Your task to perform on an android device: toggle data saver in the chrome app Image 0: 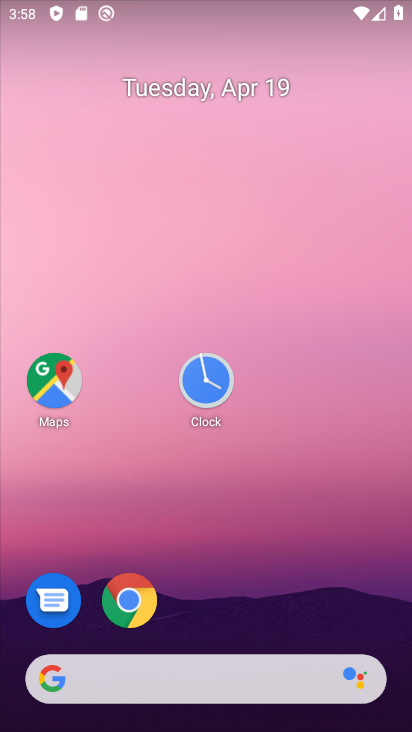
Step 0: drag from (215, 716) to (158, 231)
Your task to perform on an android device: toggle data saver in the chrome app Image 1: 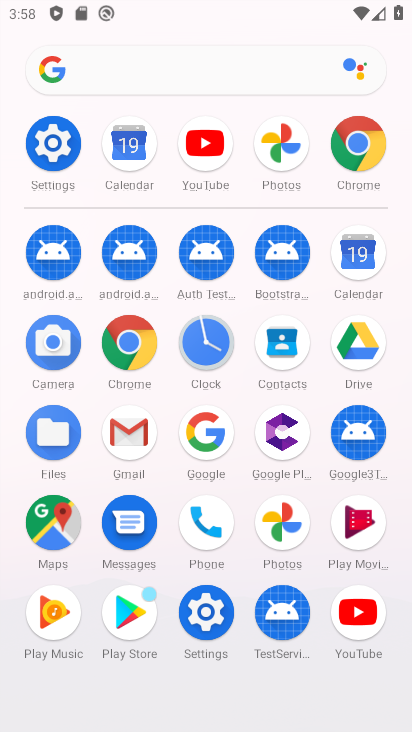
Step 1: click (356, 149)
Your task to perform on an android device: toggle data saver in the chrome app Image 2: 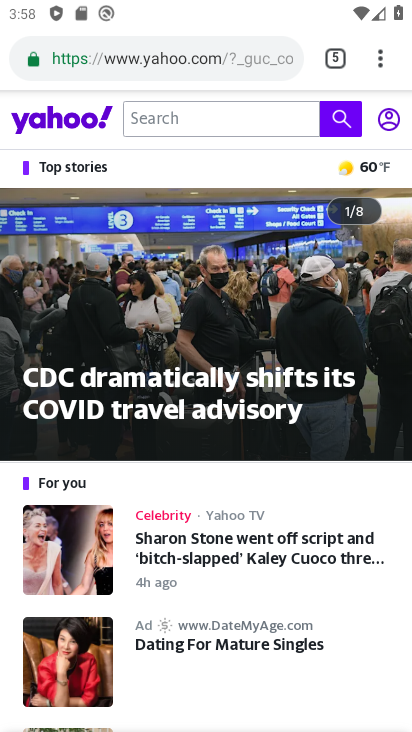
Step 2: press home button
Your task to perform on an android device: toggle data saver in the chrome app Image 3: 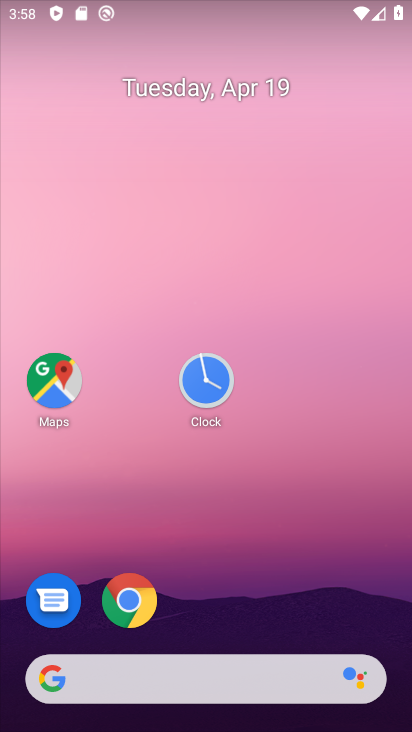
Step 3: drag from (285, 591) to (157, 151)
Your task to perform on an android device: toggle data saver in the chrome app Image 4: 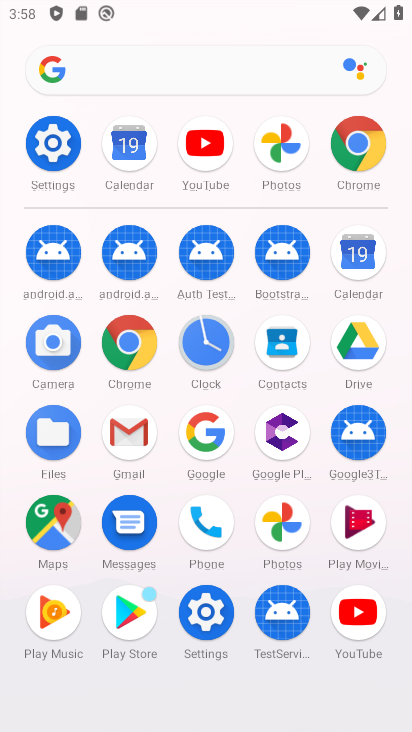
Step 4: click (357, 142)
Your task to perform on an android device: toggle data saver in the chrome app Image 5: 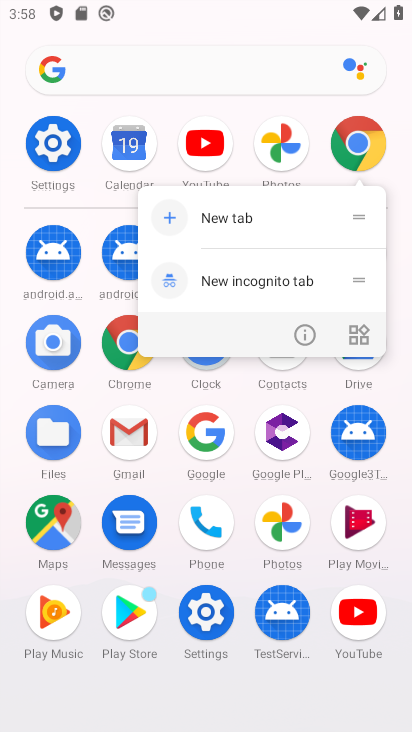
Step 5: click (357, 142)
Your task to perform on an android device: toggle data saver in the chrome app Image 6: 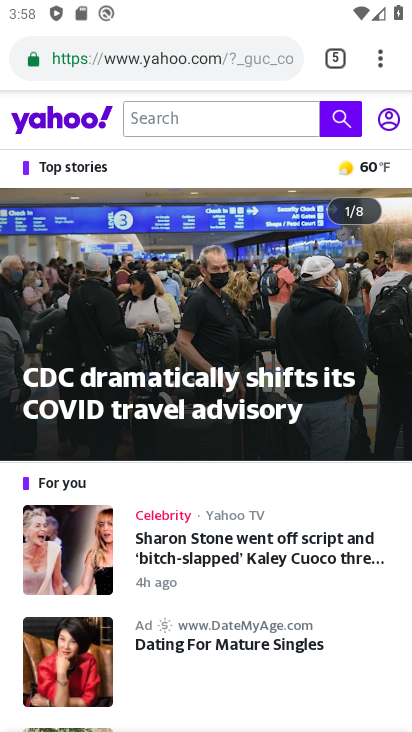
Step 6: click (373, 58)
Your task to perform on an android device: toggle data saver in the chrome app Image 7: 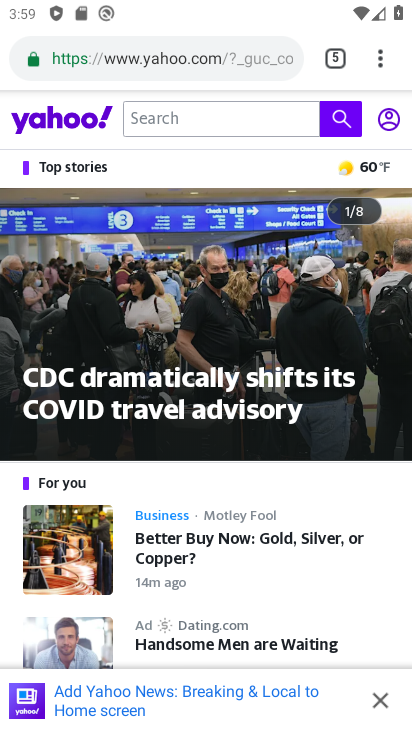
Step 7: click (378, 54)
Your task to perform on an android device: toggle data saver in the chrome app Image 8: 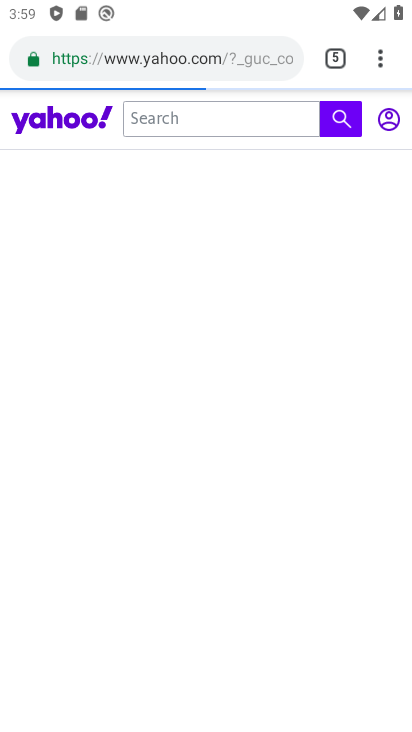
Step 8: click (378, 54)
Your task to perform on an android device: toggle data saver in the chrome app Image 9: 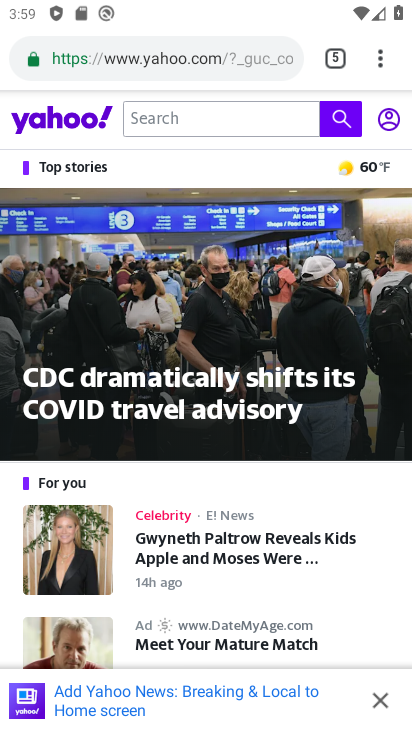
Step 9: click (378, 54)
Your task to perform on an android device: toggle data saver in the chrome app Image 10: 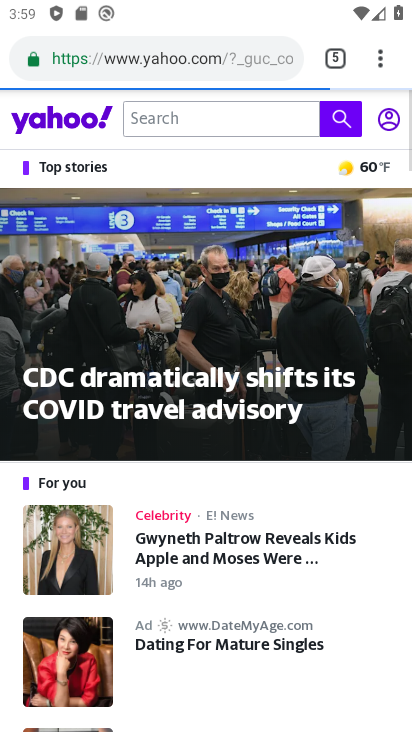
Step 10: click (378, 54)
Your task to perform on an android device: toggle data saver in the chrome app Image 11: 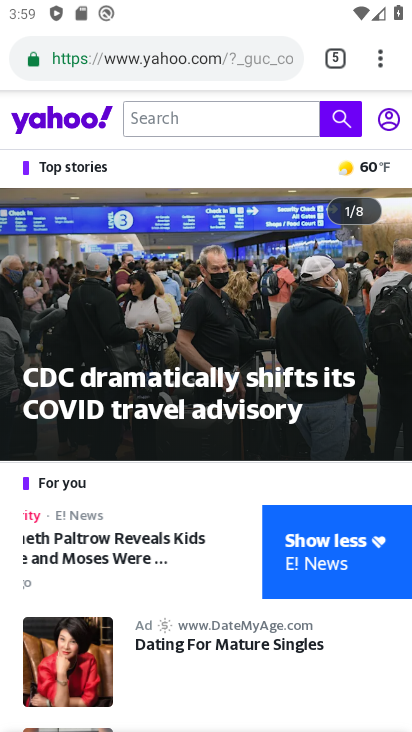
Step 11: click (378, 51)
Your task to perform on an android device: toggle data saver in the chrome app Image 12: 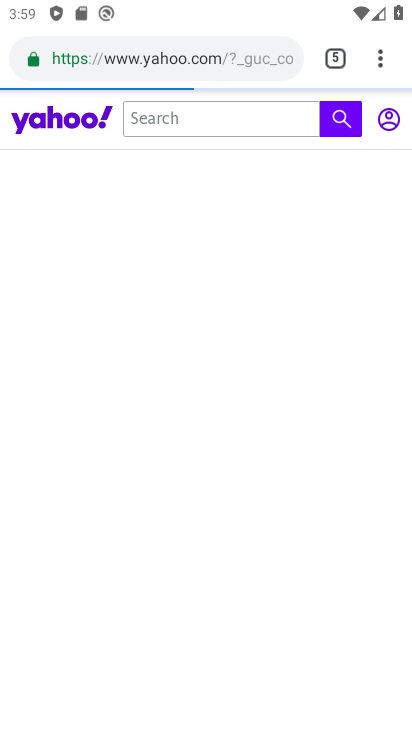
Step 12: click (378, 51)
Your task to perform on an android device: toggle data saver in the chrome app Image 13: 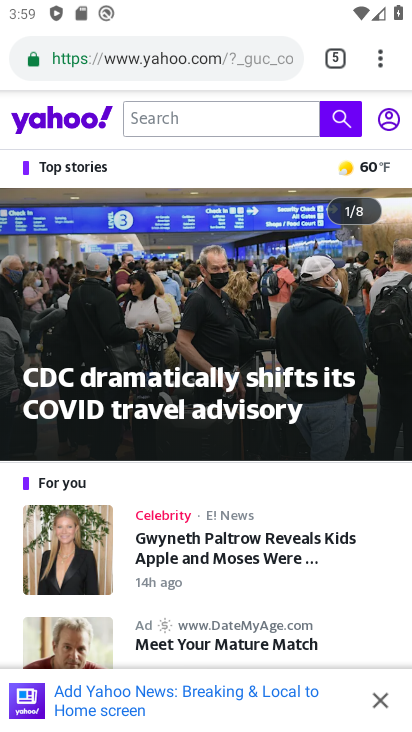
Step 13: click (382, 56)
Your task to perform on an android device: toggle data saver in the chrome app Image 14: 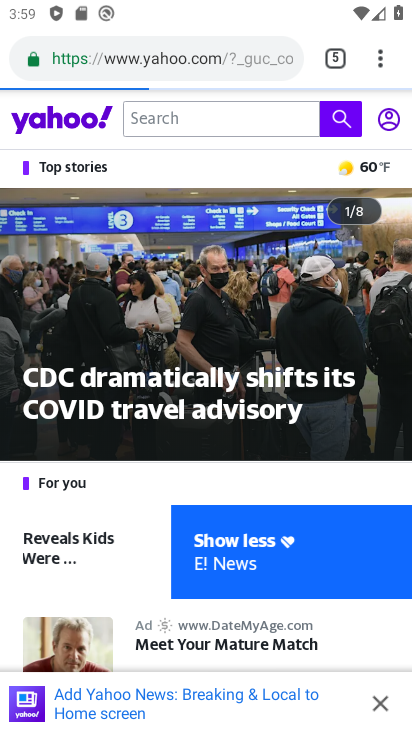
Step 14: click (382, 56)
Your task to perform on an android device: toggle data saver in the chrome app Image 15: 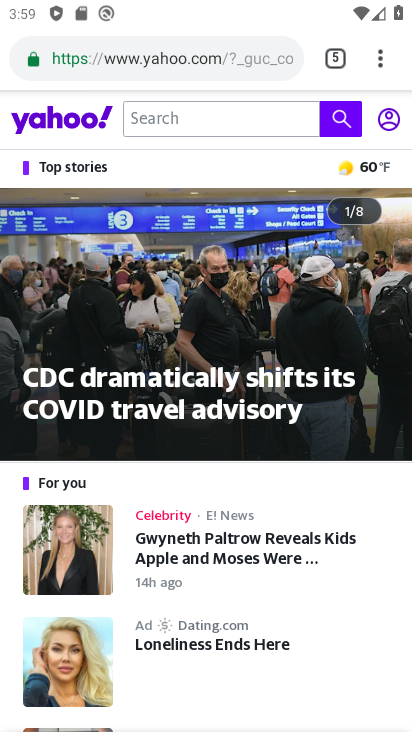
Step 15: click (382, 56)
Your task to perform on an android device: toggle data saver in the chrome app Image 16: 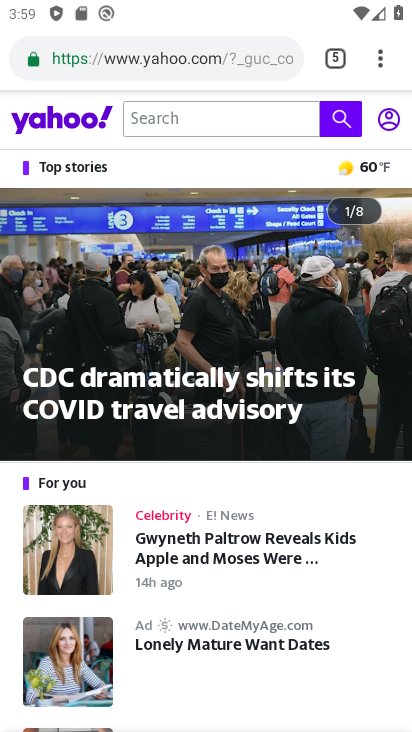
Step 16: click (378, 53)
Your task to perform on an android device: toggle data saver in the chrome app Image 17: 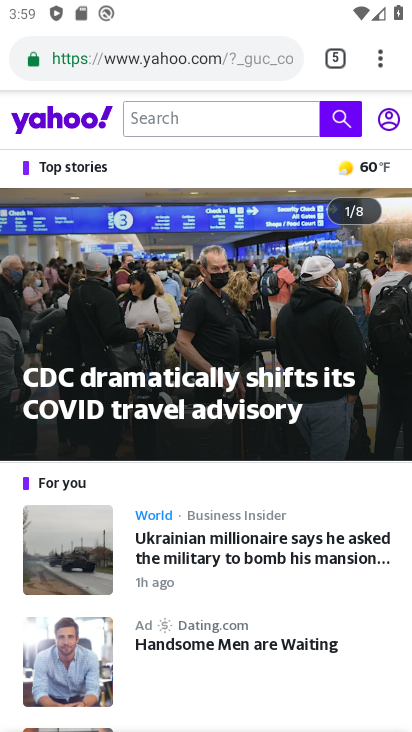
Step 17: click (377, 58)
Your task to perform on an android device: toggle data saver in the chrome app Image 18: 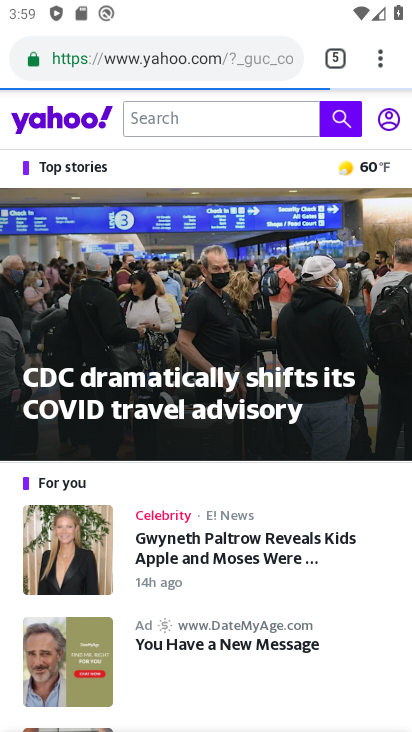
Step 18: click (381, 56)
Your task to perform on an android device: toggle data saver in the chrome app Image 19: 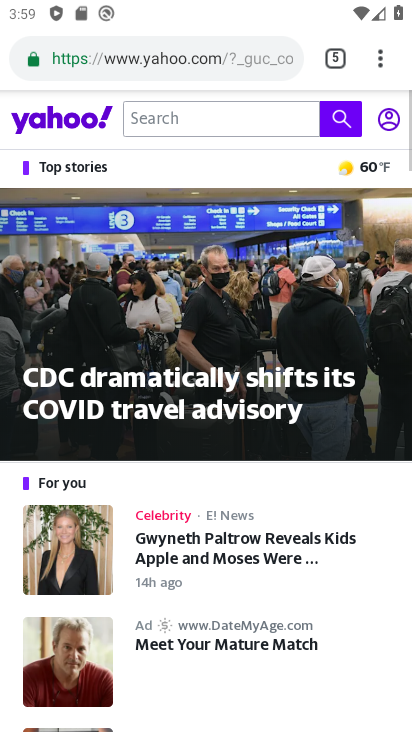
Step 19: click (373, 58)
Your task to perform on an android device: toggle data saver in the chrome app Image 20: 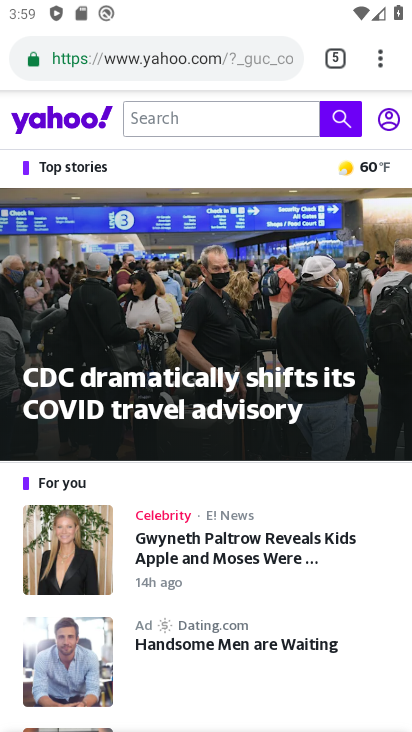
Step 20: click (376, 62)
Your task to perform on an android device: toggle data saver in the chrome app Image 21: 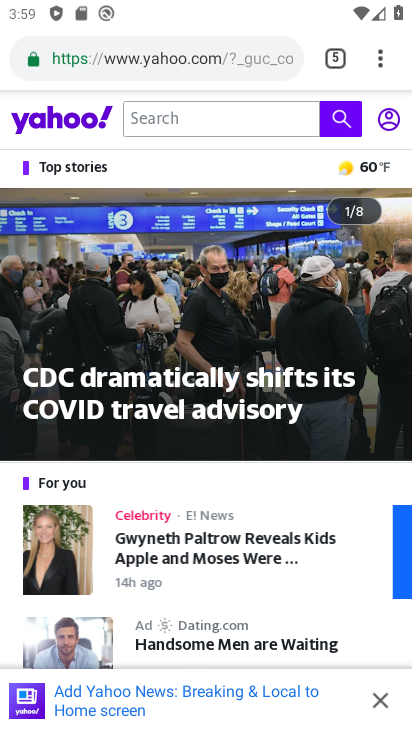
Step 21: click (374, 56)
Your task to perform on an android device: toggle data saver in the chrome app Image 22: 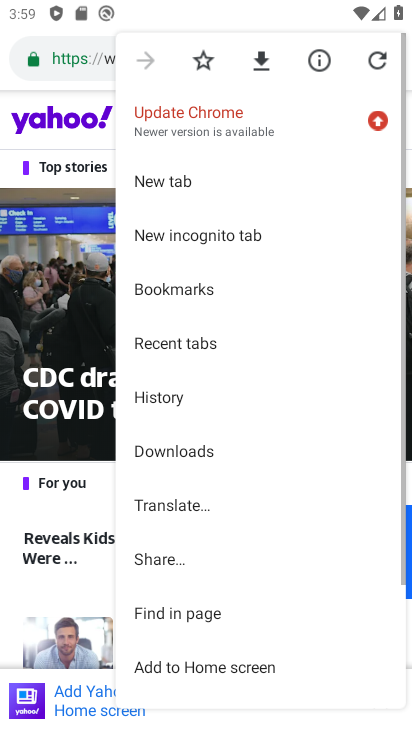
Step 22: click (373, 58)
Your task to perform on an android device: toggle data saver in the chrome app Image 23: 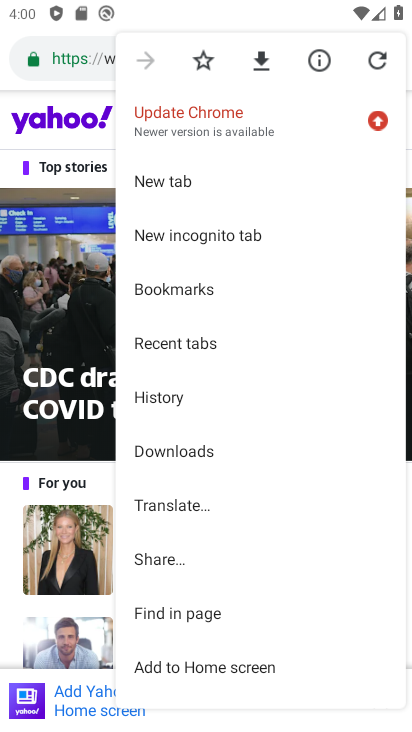
Step 23: drag from (318, 585) to (284, 234)
Your task to perform on an android device: toggle data saver in the chrome app Image 24: 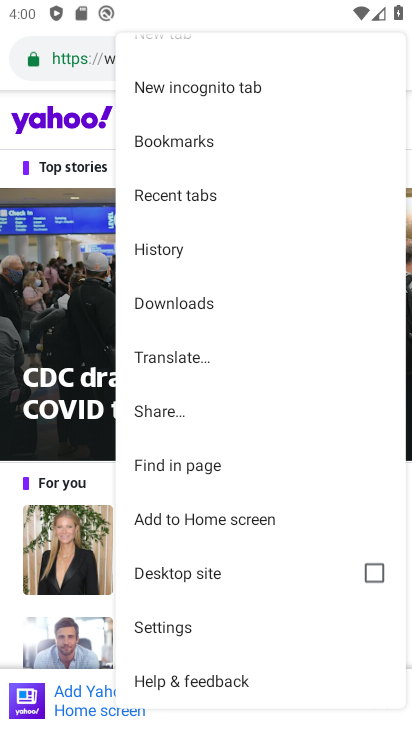
Step 24: click (169, 622)
Your task to perform on an android device: toggle data saver in the chrome app Image 25: 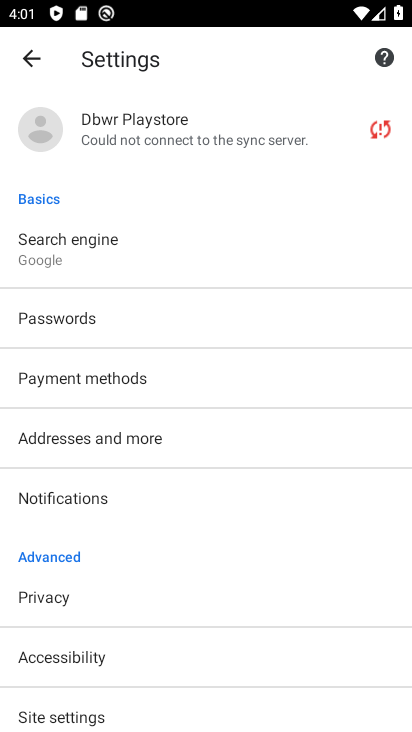
Step 25: drag from (17, 333) to (60, 154)
Your task to perform on an android device: toggle data saver in the chrome app Image 26: 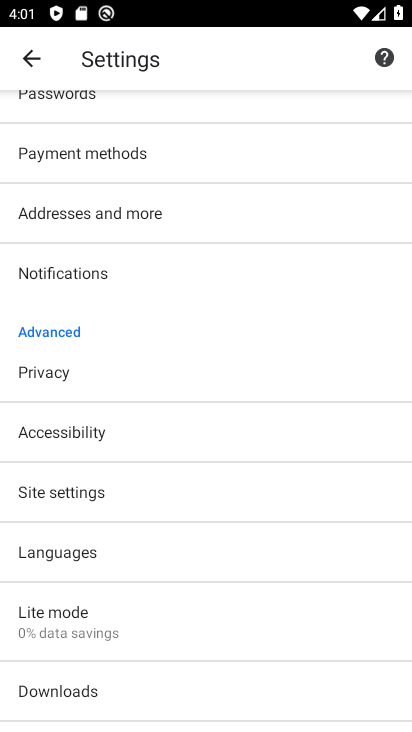
Step 26: click (198, 108)
Your task to perform on an android device: toggle data saver in the chrome app Image 27: 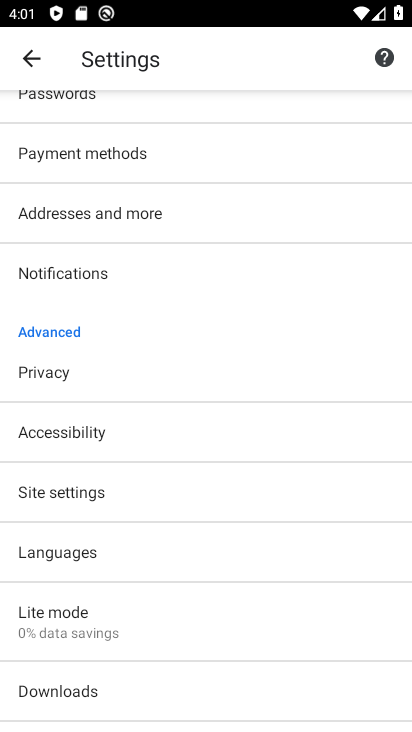
Step 27: drag from (90, 265) to (164, 204)
Your task to perform on an android device: toggle data saver in the chrome app Image 28: 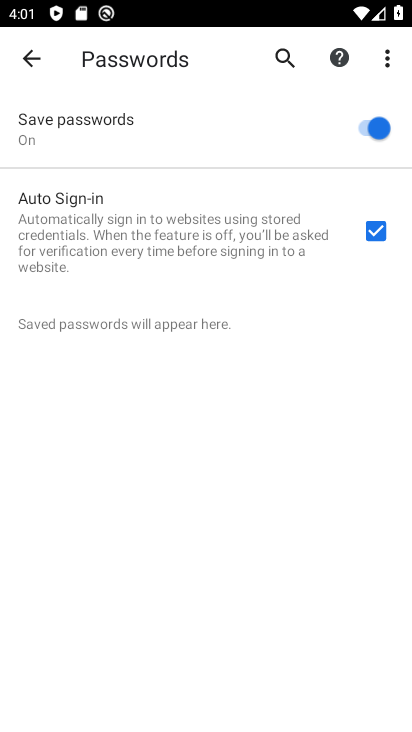
Step 28: click (55, 608)
Your task to perform on an android device: toggle data saver in the chrome app Image 29: 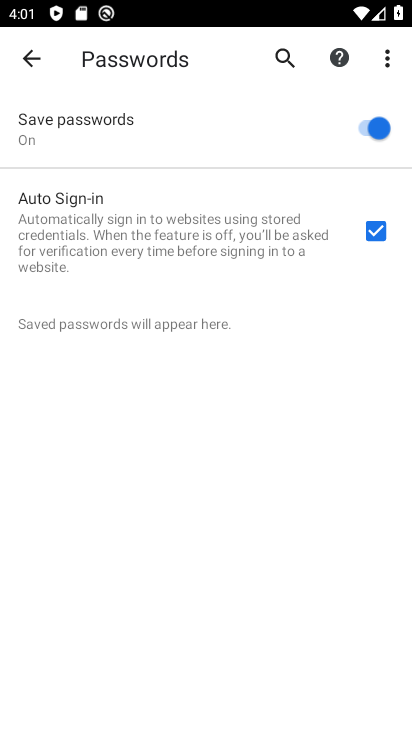
Step 29: click (33, 50)
Your task to perform on an android device: toggle data saver in the chrome app Image 30: 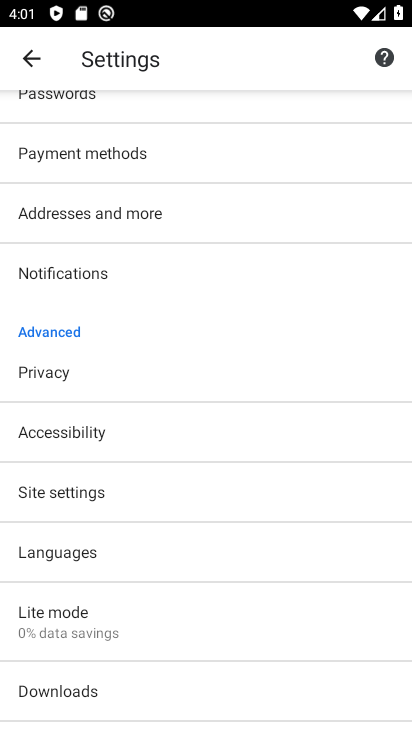
Step 30: click (66, 622)
Your task to perform on an android device: toggle data saver in the chrome app Image 31: 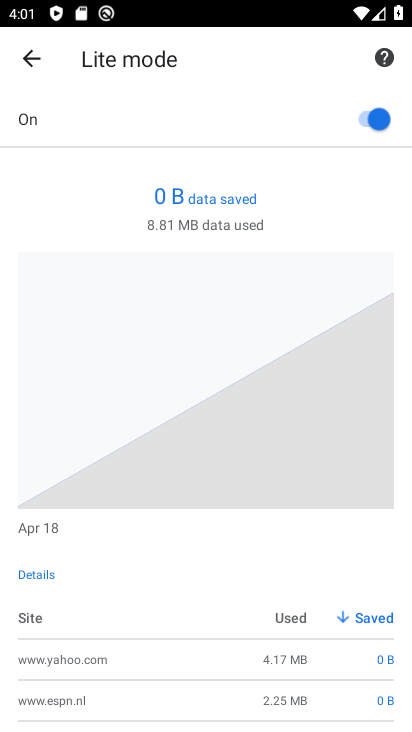
Step 31: click (75, 625)
Your task to perform on an android device: toggle data saver in the chrome app Image 32: 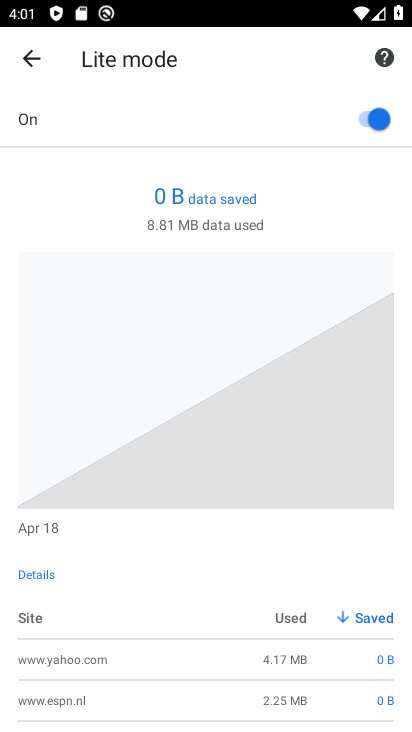
Step 32: click (365, 110)
Your task to perform on an android device: toggle data saver in the chrome app Image 33: 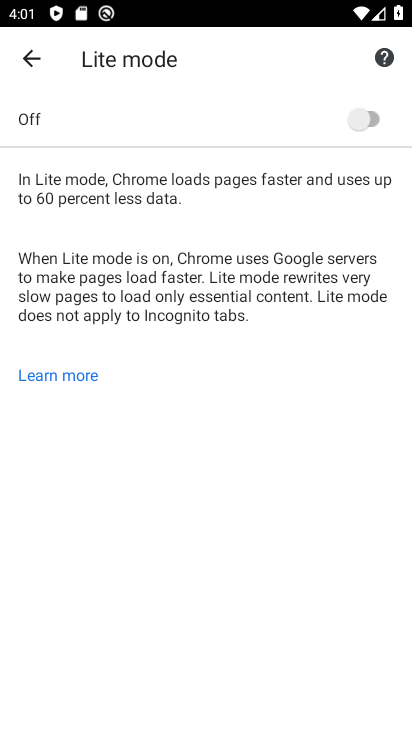
Step 33: task complete